Your task to perform on an android device: Open my contact list Image 0: 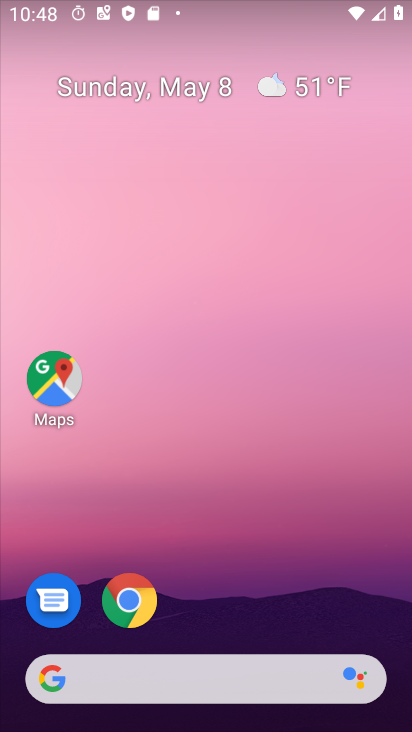
Step 0: drag from (260, 545) to (245, 27)
Your task to perform on an android device: Open my contact list Image 1: 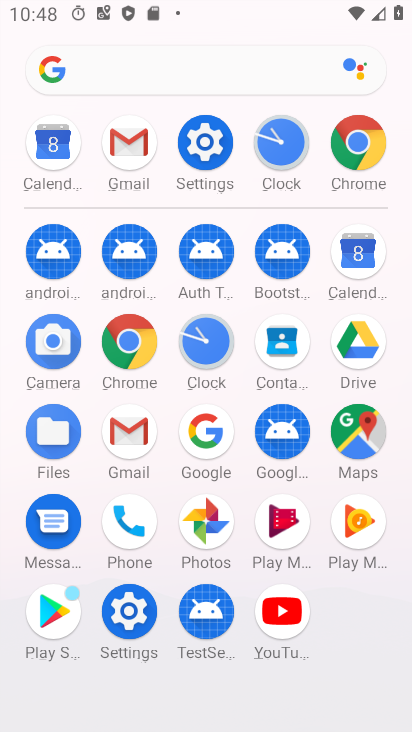
Step 1: drag from (0, 589) to (7, 295)
Your task to perform on an android device: Open my contact list Image 2: 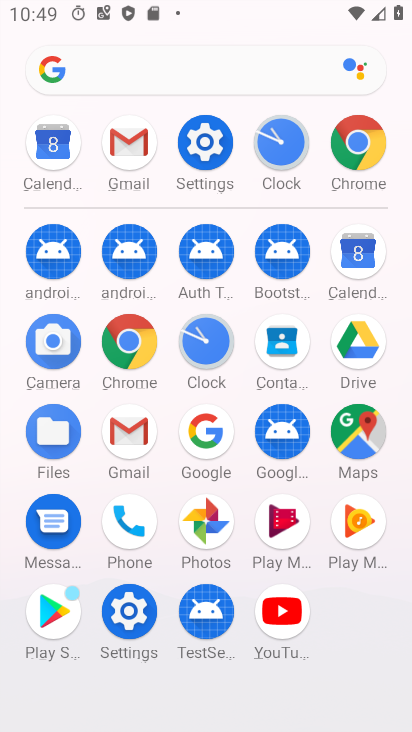
Step 2: click (280, 334)
Your task to perform on an android device: Open my contact list Image 3: 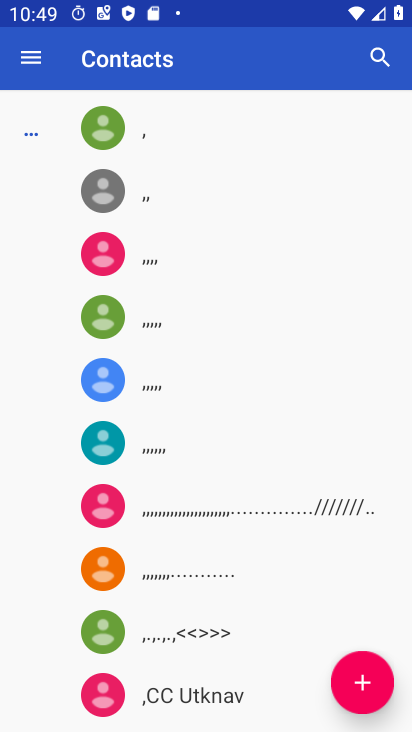
Step 3: task complete